Your task to perform on an android device: See recent photos Image 0: 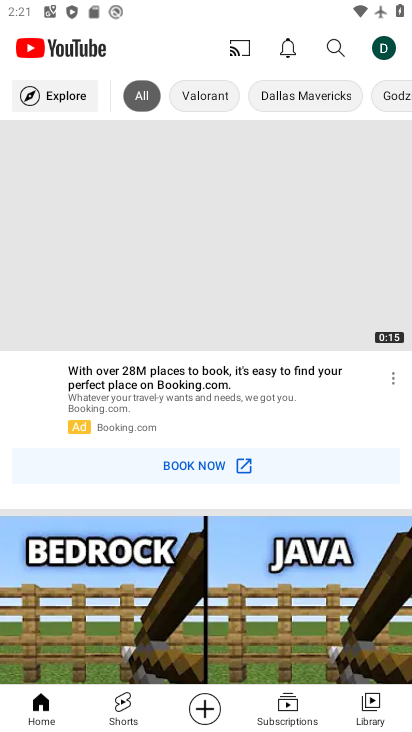
Step 0: press home button
Your task to perform on an android device: See recent photos Image 1: 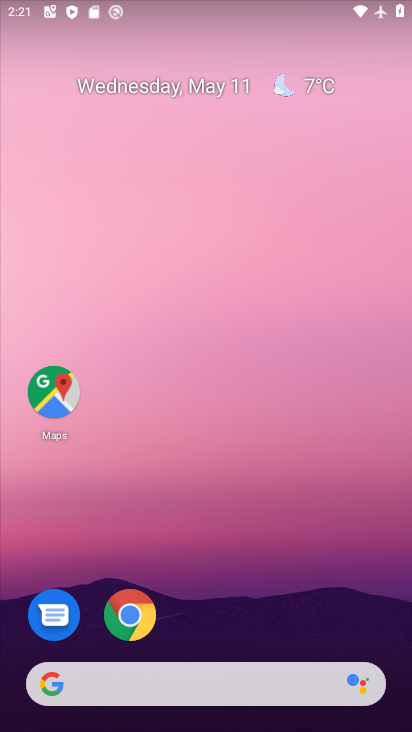
Step 1: drag from (279, 597) to (312, 41)
Your task to perform on an android device: See recent photos Image 2: 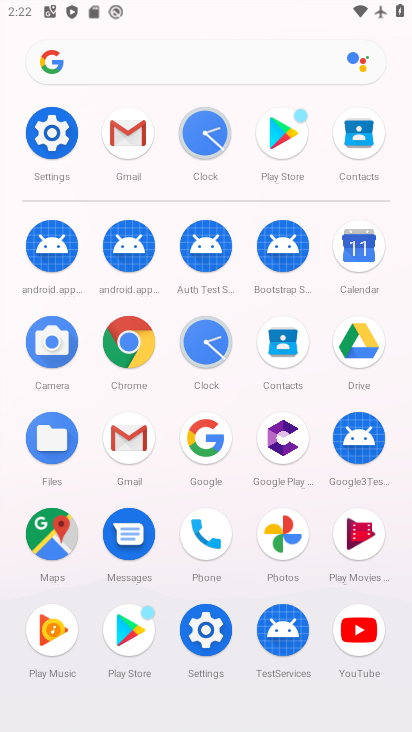
Step 2: click (294, 536)
Your task to perform on an android device: See recent photos Image 3: 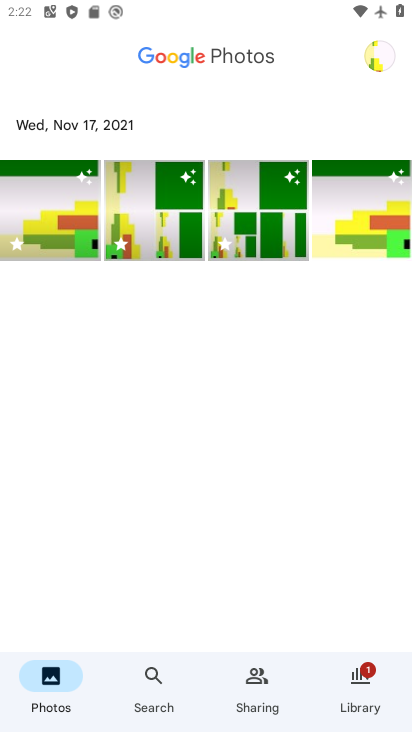
Step 3: task complete